Your task to perform on an android device: What's on my calendar today? Image 0: 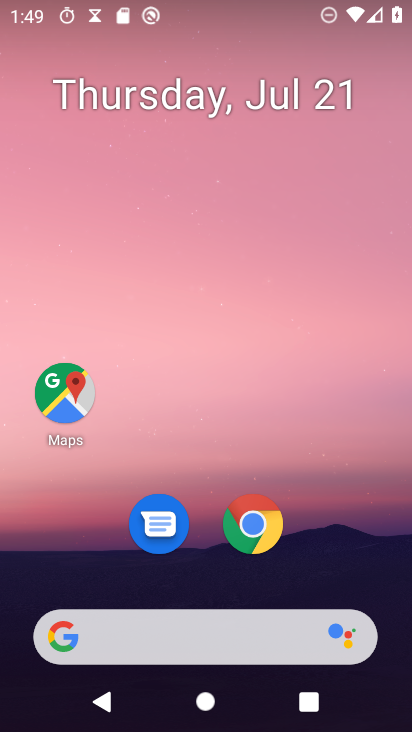
Step 0: drag from (221, 617) to (317, 40)
Your task to perform on an android device: What's on my calendar today? Image 1: 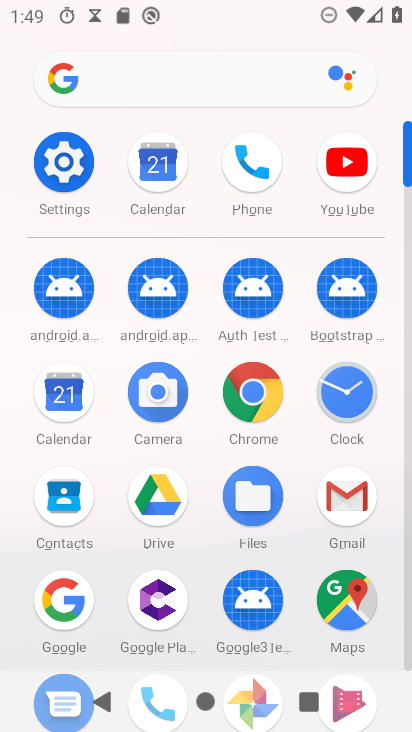
Step 1: click (67, 401)
Your task to perform on an android device: What's on my calendar today? Image 2: 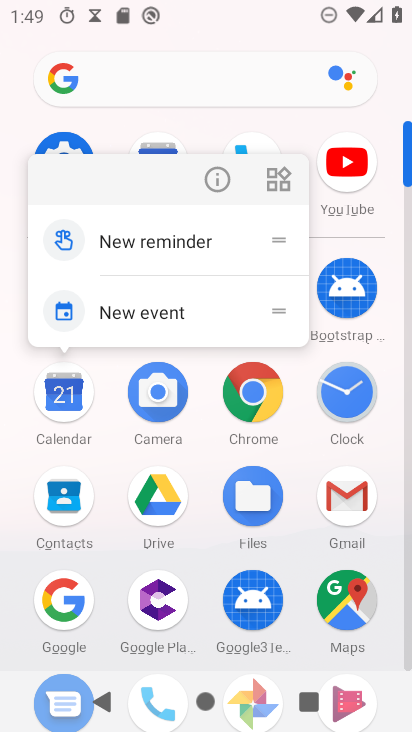
Step 2: click (57, 395)
Your task to perform on an android device: What's on my calendar today? Image 3: 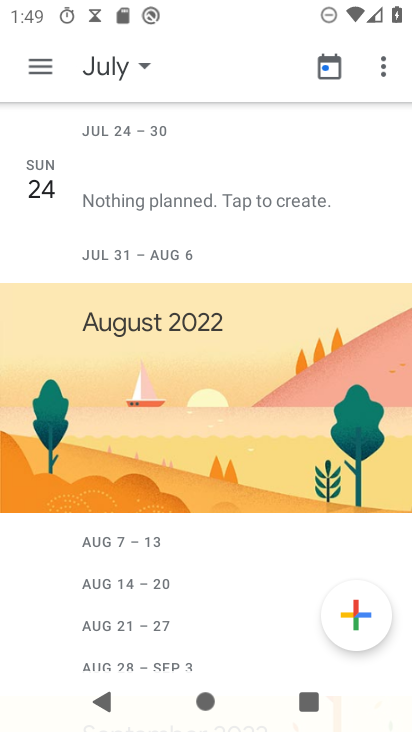
Step 3: click (99, 65)
Your task to perform on an android device: What's on my calendar today? Image 4: 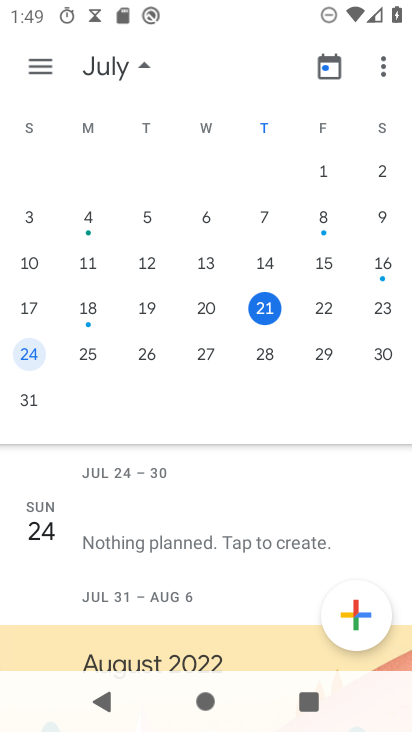
Step 4: click (268, 311)
Your task to perform on an android device: What's on my calendar today? Image 5: 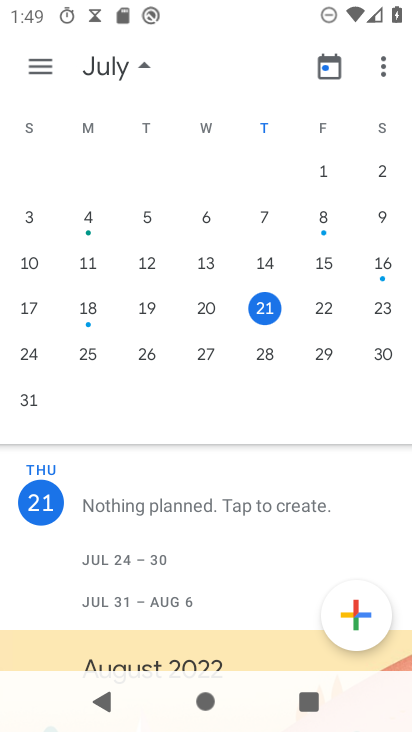
Step 5: task complete